Your task to perform on an android device: Go to notification settings Image 0: 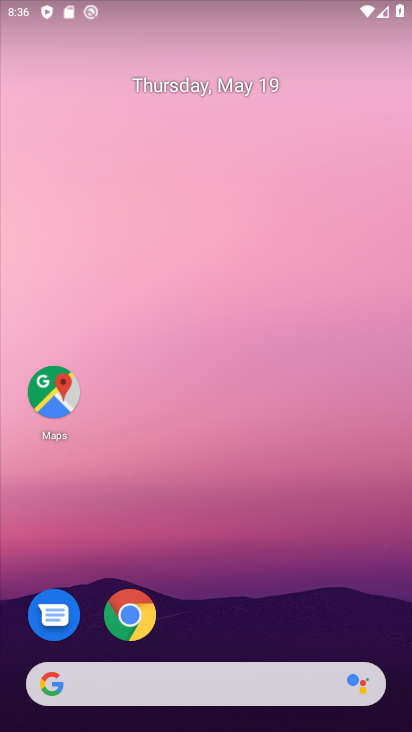
Step 0: press home button
Your task to perform on an android device: Go to notification settings Image 1: 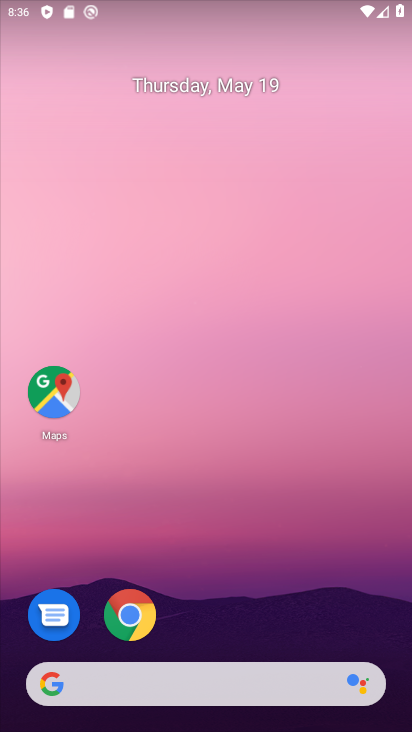
Step 1: drag from (336, 592) to (345, 146)
Your task to perform on an android device: Go to notification settings Image 2: 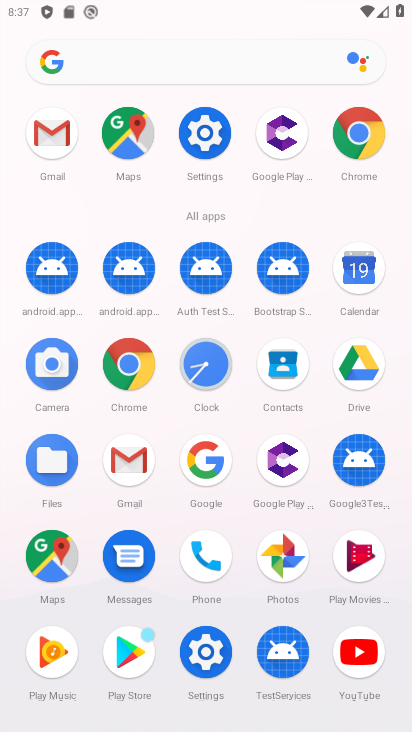
Step 2: click (199, 133)
Your task to perform on an android device: Go to notification settings Image 3: 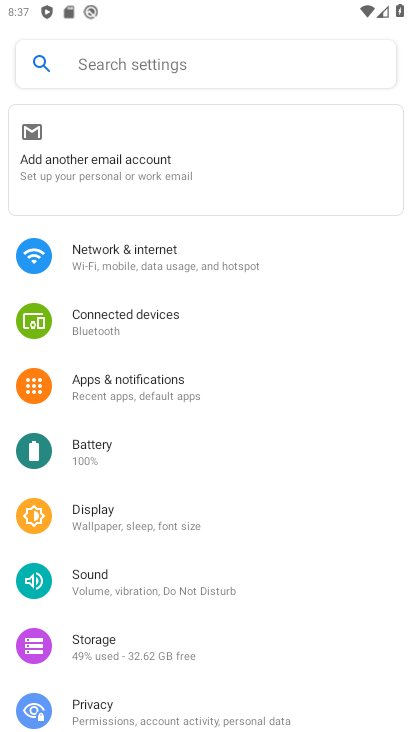
Step 3: click (152, 380)
Your task to perform on an android device: Go to notification settings Image 4: 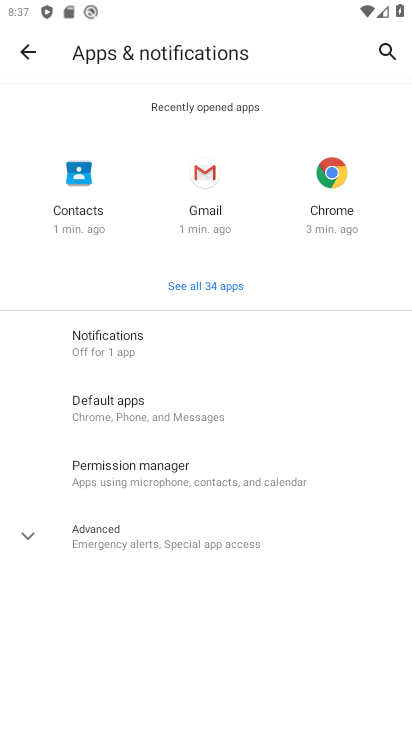
Step 4: task complete